Your task to perform on an android device: turn off smart reply in the gmail app Image 0: 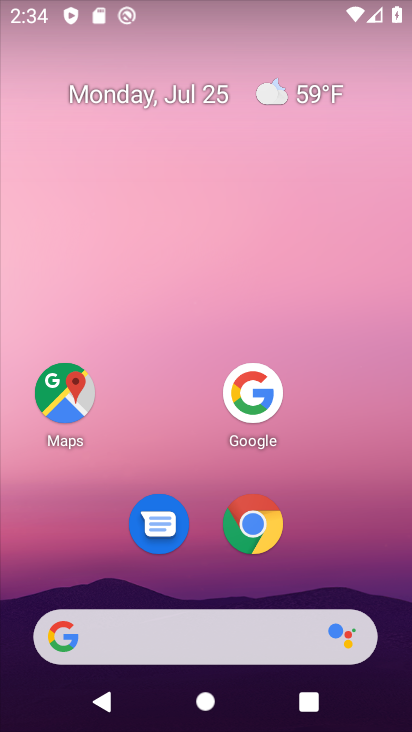
Step 0: drag from (213, 627) to (354, 148)
Your task to perform on an android device: turn off smart reply in the gmail app Image 1: 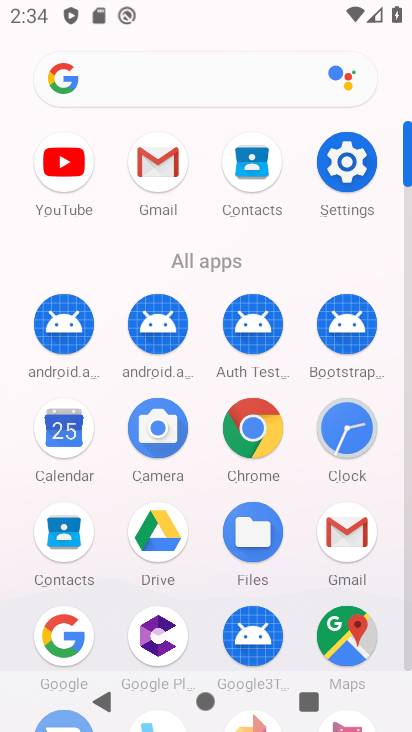
Step 1: click (345, 527)
Your task to perform on an android device: turn off smart reply in the gmail app Image 2: 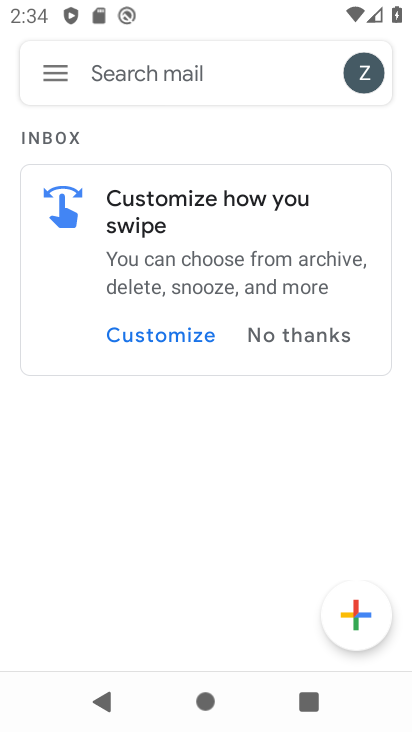
Step 2: click (46, 70)
Your task to perform on an android device: turn off smart reply in the gmail app Image 3: 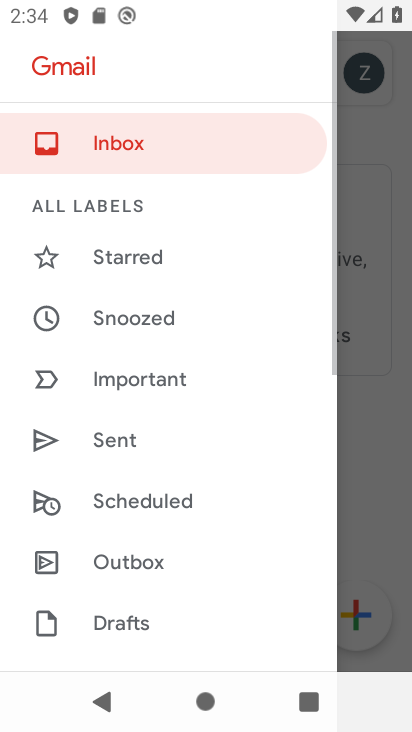
Step 3: drag from (160, 580) to (273, 83)
Your task to perform on an android device: turn off smart reply in the gmail app Image 4: 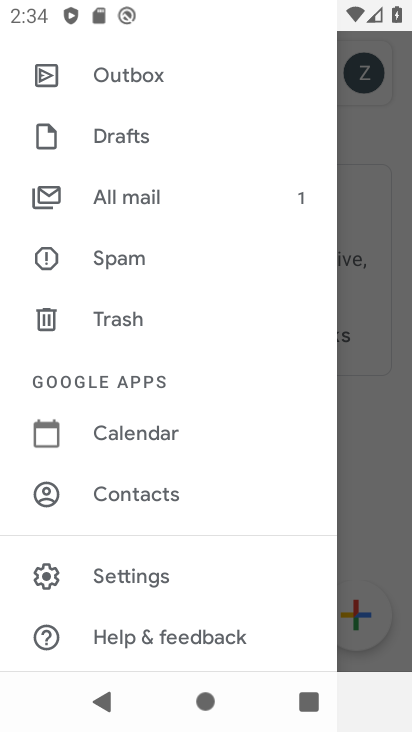
Step 4: click (139, 569)
Your task to perform on an android device: turn off smart reply in the gmail app Image 5: 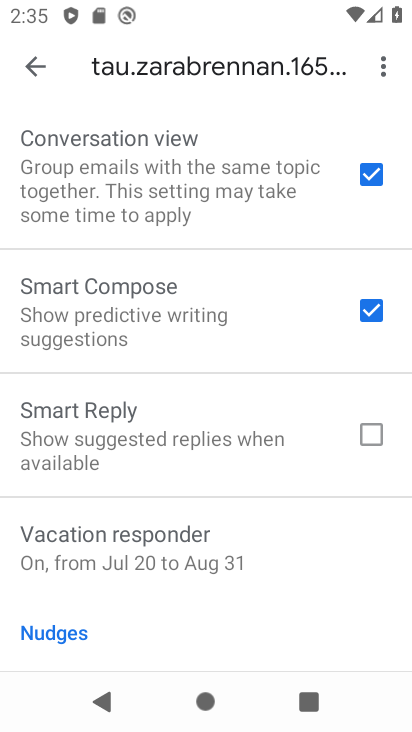
Step 5: task complete